Your task to perform on an android device: Open eBay Image 0: 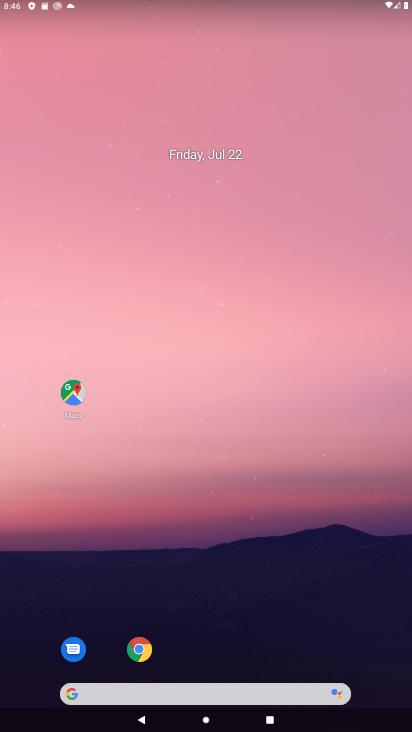
Step 0: click (133, 644)
Your task to perform on an android device: Open eBay Image 1: 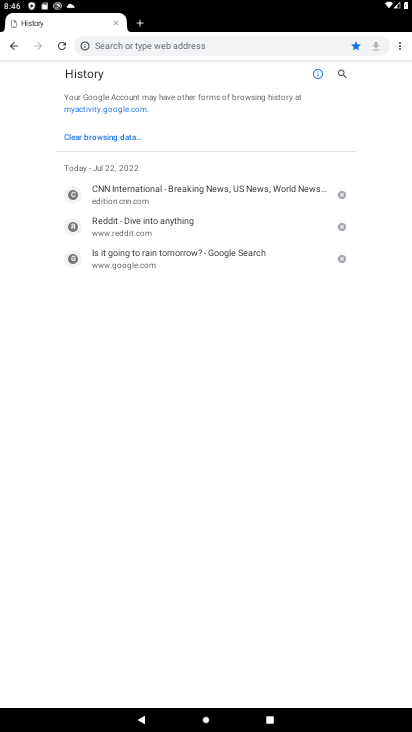
Step 1: click (142, 23)
Your task to perform on an android device: Open eBay Image 2: 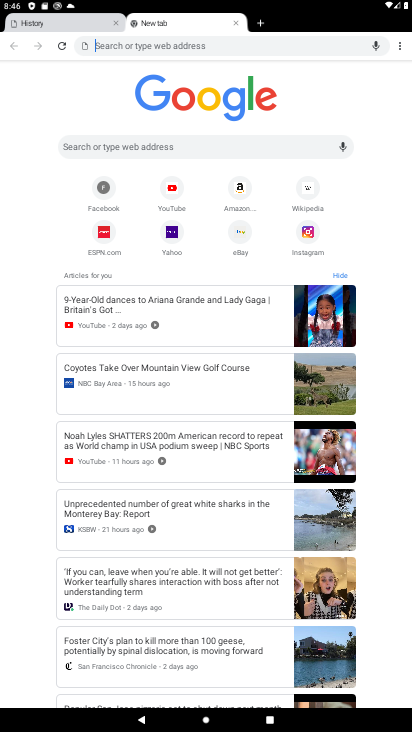
Step 2: click (236, 233)
Your task to perform on an android device: Open eBay Image 3: 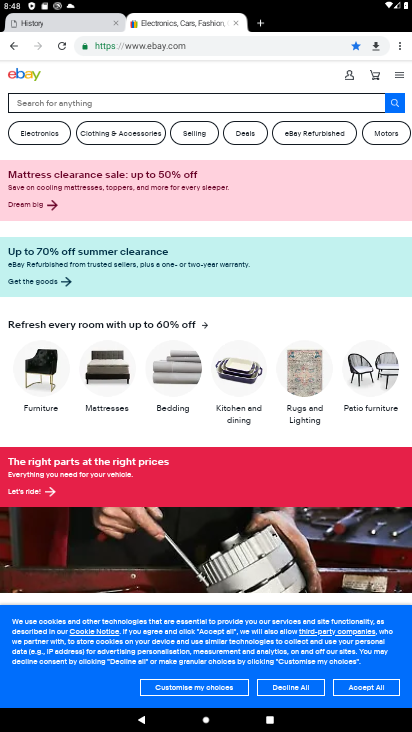
Step 3: task complete